Your task to perform on an android device: choose inbox layout in the gmail app Image 0: 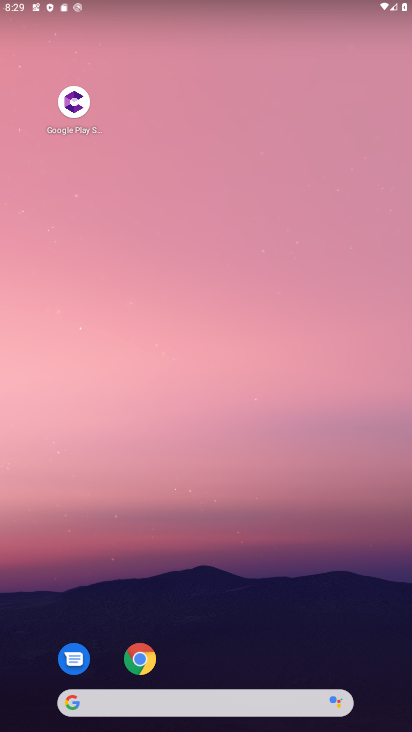
Step 0: drag from (196, 650) to (238, 309)
Your task to perform on an android device: choose inbox layout in the gmail app Image 1: 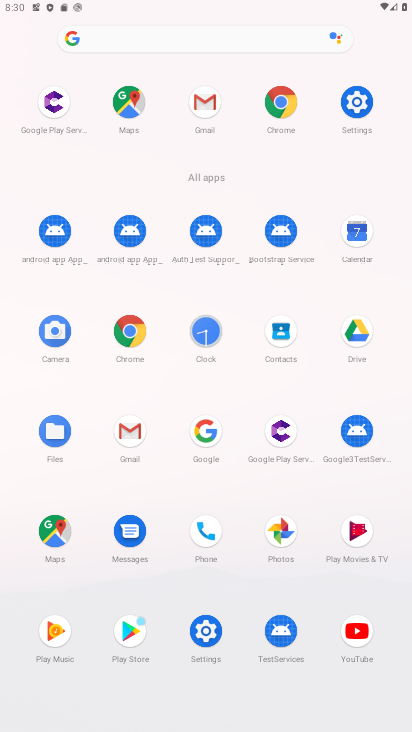
Step 1: click (127, 442)
Your task to perform on an android device: choose inbox layout in the gmail app Image 2: 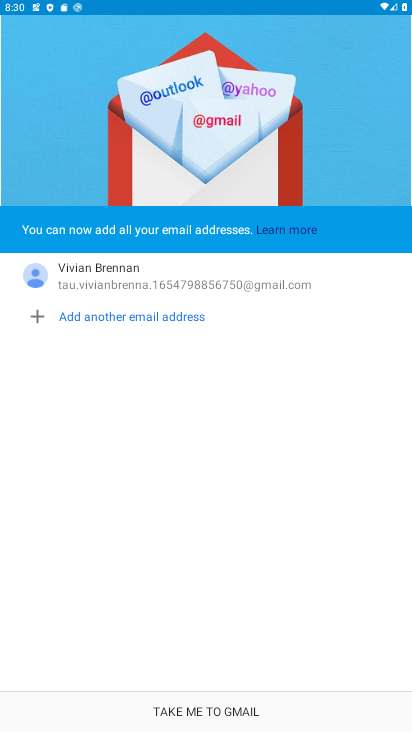
Step 2: click (210, 712)
Your task to perform on an android device: choose inbox layout in the gmail app Image 3: 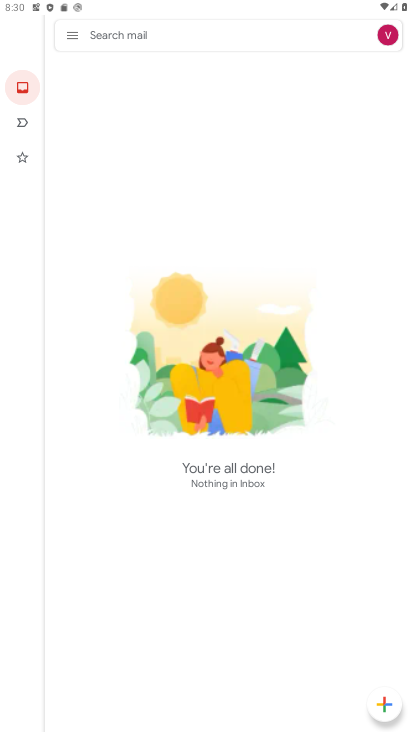
Step 3: click (61, 27)
Your task to perform on an android device: choose inbox layout in the gmail app Image 4: 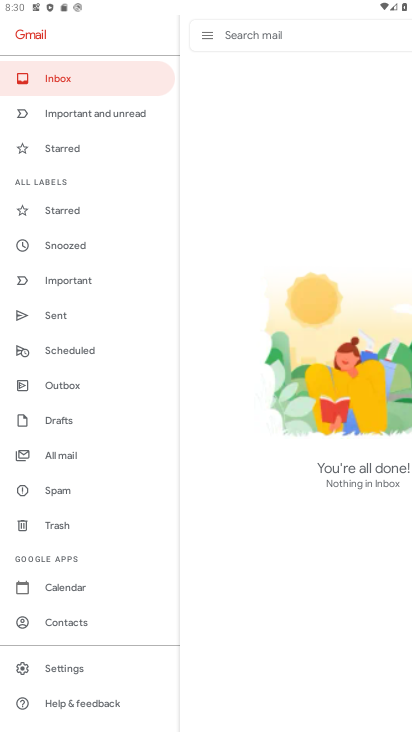
Step 4: drag from (62, 625) to (71, 408)
Your task to perform on an android device: choose inbox layout in the gmail app Image 5: 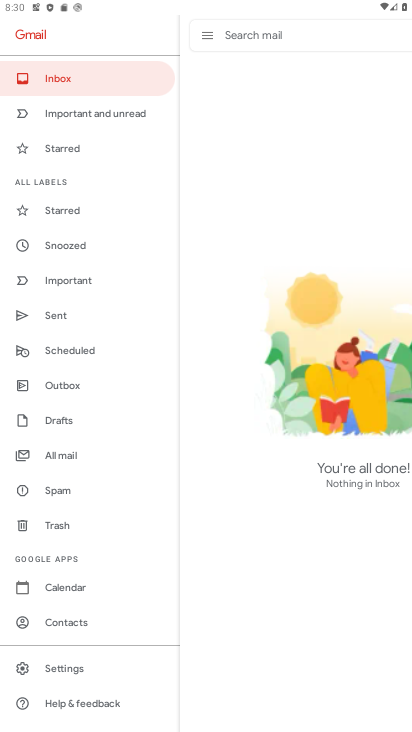
Step 5: click (64, 668)
Your task to perform on an android device: choose inbox layout in the gmail app Image 6: 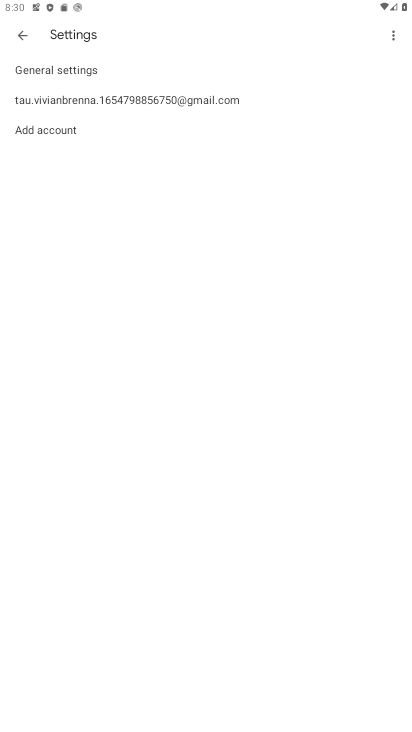
Step 6: click (104, 95)
Your task to perform on an android device: choose inbox layout in the gmail app Image 7: 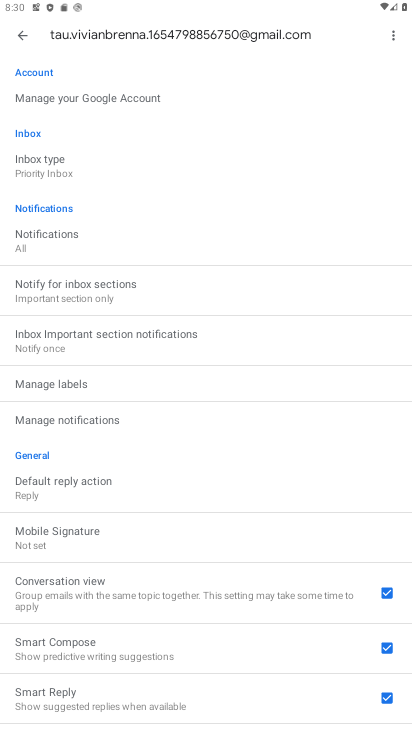
Step 7: click (61, 172)
Your task to perform on an android device: choose inbox layout in the gmail app Image 8: 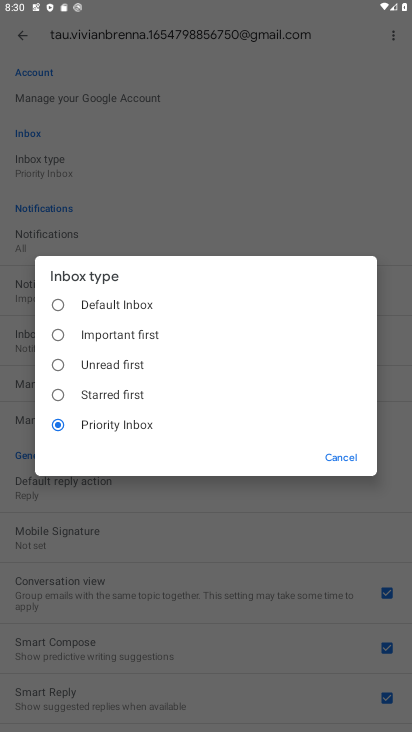
Step 8: click (118, 302)
Your task to perform on an android device: choose inbox layout in the gmail app Image 9: 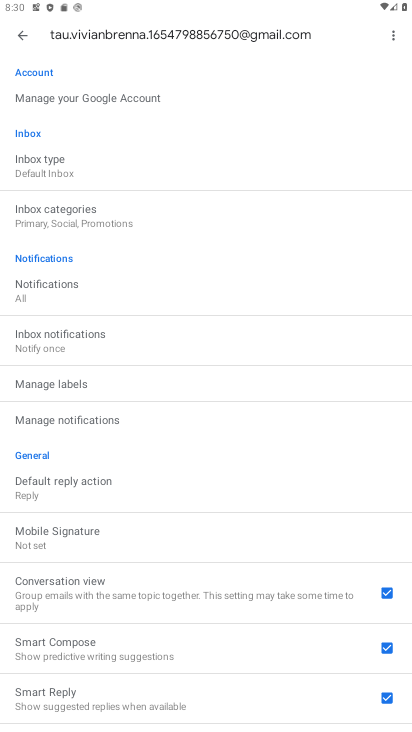
Step 9: task complete